Your task to perform on an android device: snooze an email in the gmail app Image 0: 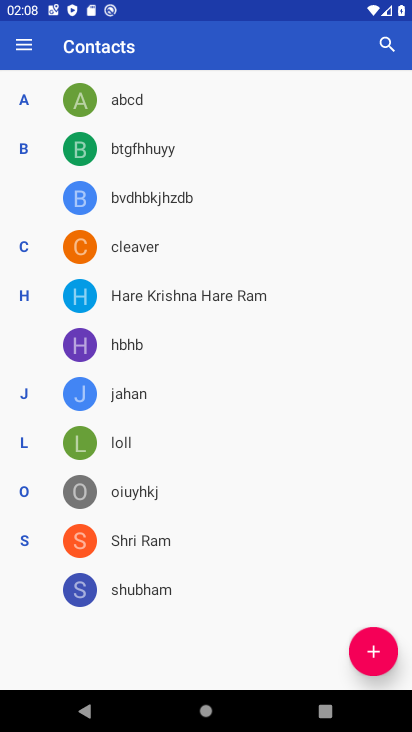
Step 0: press home button
Your task to perform on an android device: snooze an email in the gmail app Image 1: 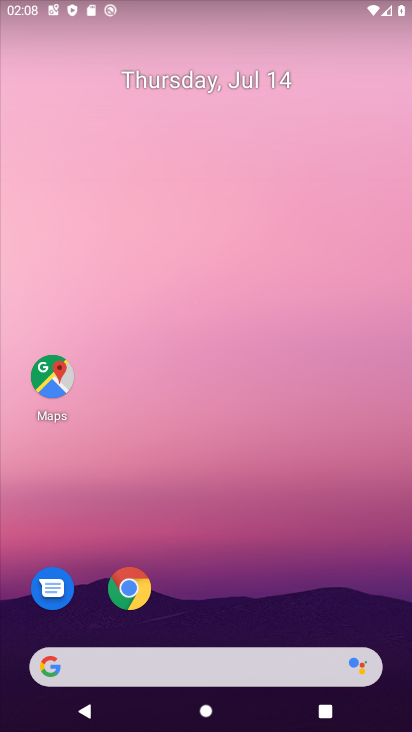
Step 1: drag from (140, 666) to (140, 172)
Your task to perform on an android device: snooze an email in the gmail app Image 2: 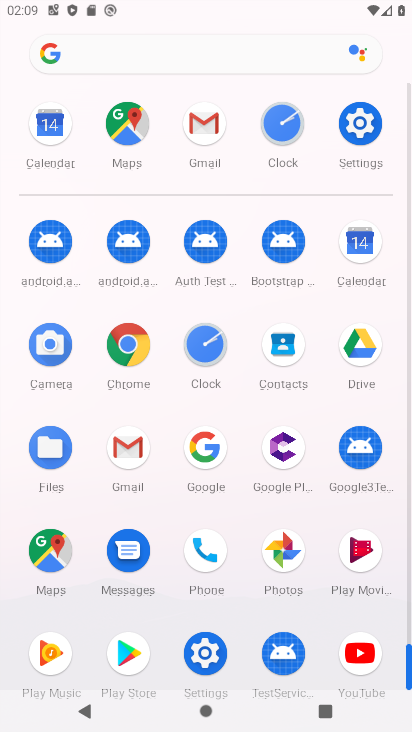
Step 2: click (134, 459)
Your task to perform on an android device: snooze an email in the gmail app Image 3: 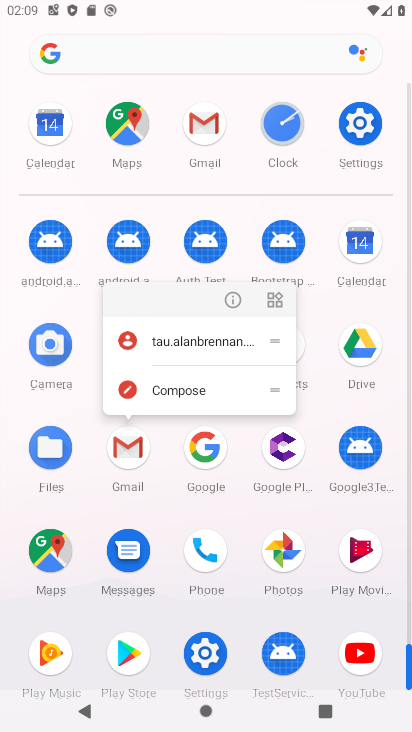
Step 3: click (134, 459)
Your task to perform on an android device: snooze an email in the gmail app Image 4: 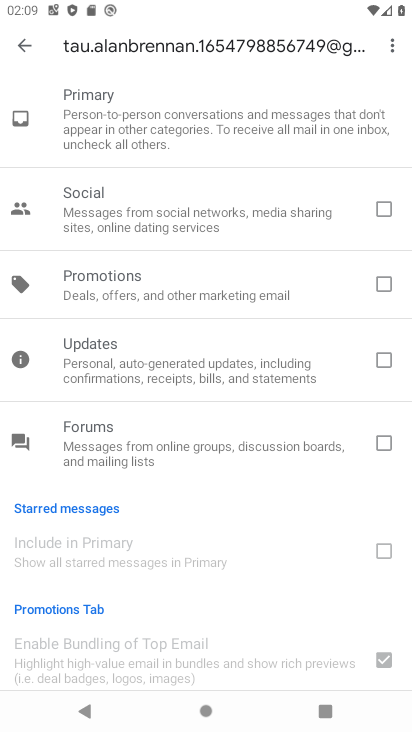
Step 4: click (11, 39)
Your task to perform on an android device: snooze an email in the gmail app Image 5: 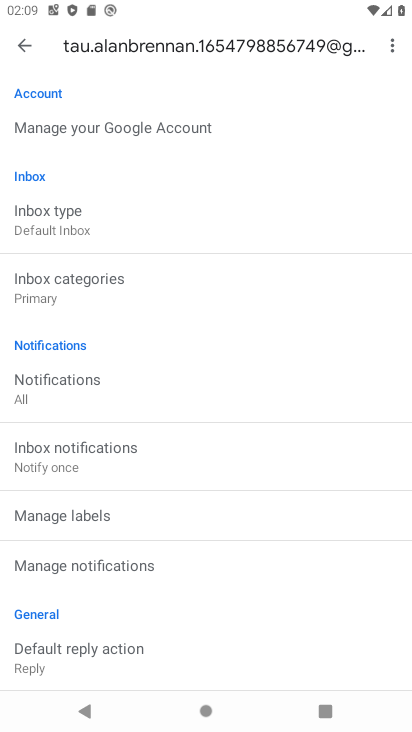
Step 5: click (26, 41)
Your task to perform on an android device: snooze an email in the gmail app Image 6: 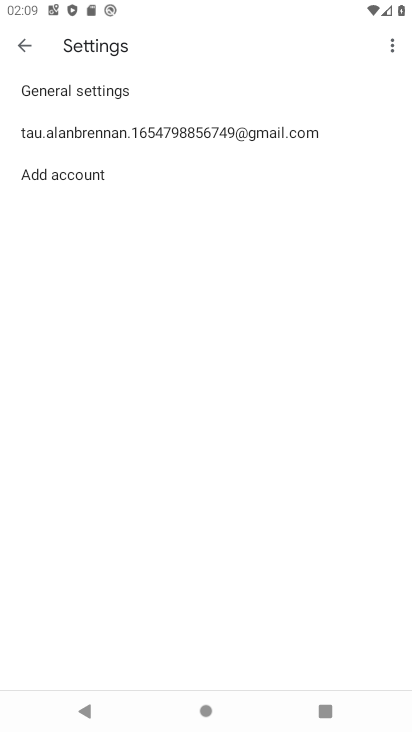
Step 6: click (26, 41)
Your task to perform on an android device: snooze an email in the gmail app Image 7: 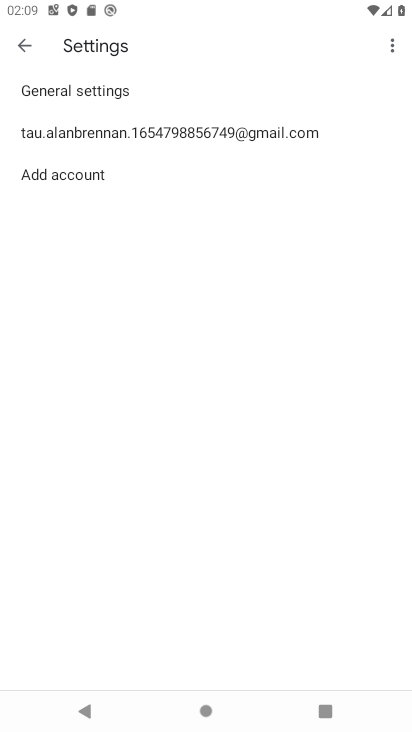
Step 7: click (28, 45)
Your task to perform on an android device: snooze an email in the gmail app Image 8: 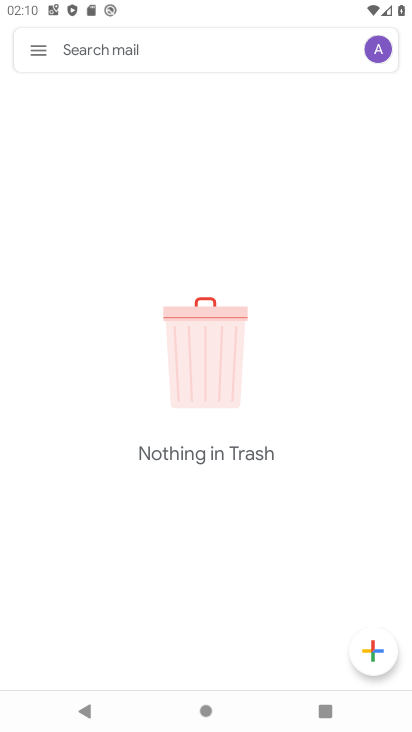
Step 8: click (37, 50)
Your task to perform on an android device: snooze an email in the gmail app Image 9: 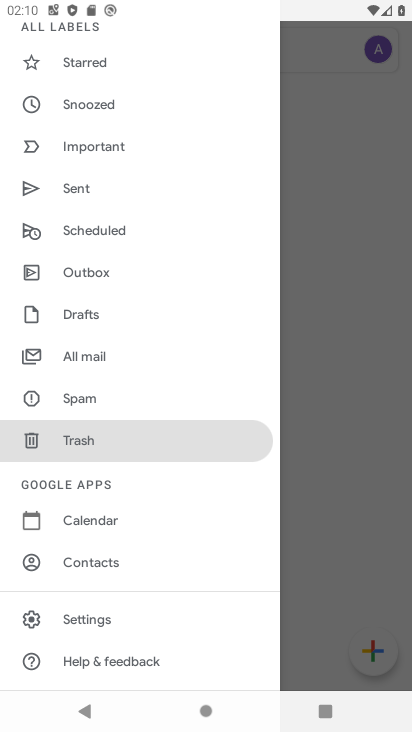
Step 9: click (98, 348)
Your task to perform on an android device: snooze an email in the gmail app Image 10: 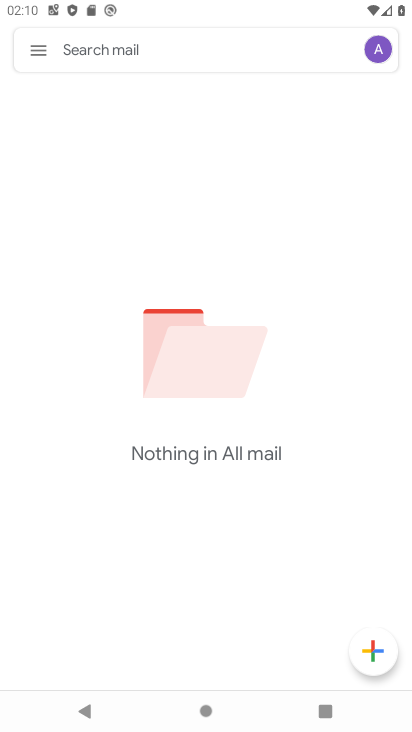
Step 10: task complete